Your task to perform on an android device: Search for pizza restaurants on Maps Image 0: 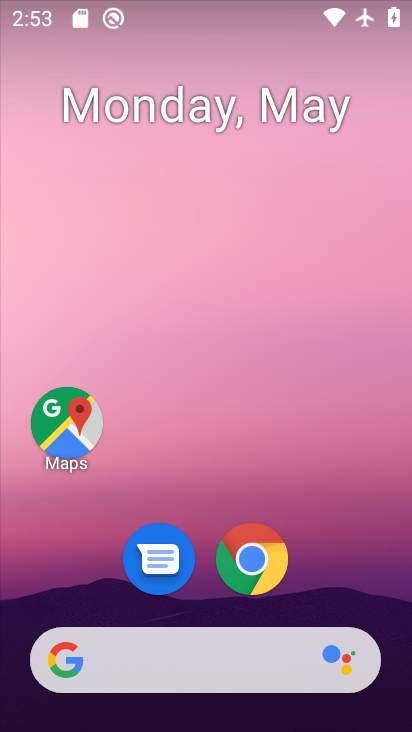
Step 0: drag from (307, 606) to (235, 249)
Your task to perform on an android device: Search for pizza restaurants on Maps Image 1: 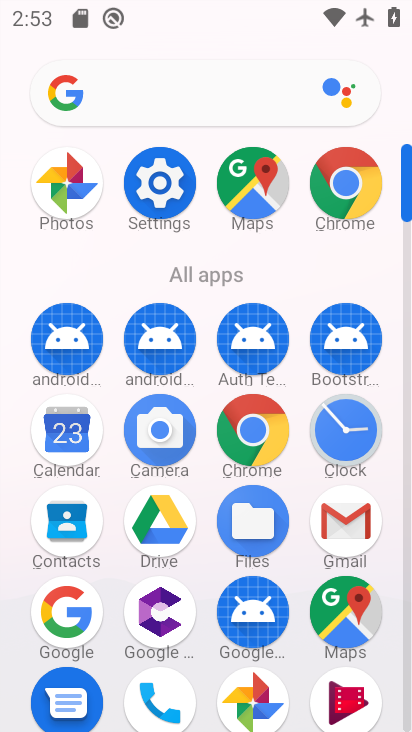
Step 1: click (243, 197)
Your task to perform on an android device: Search for pizza restaurants on Maps Image 2: 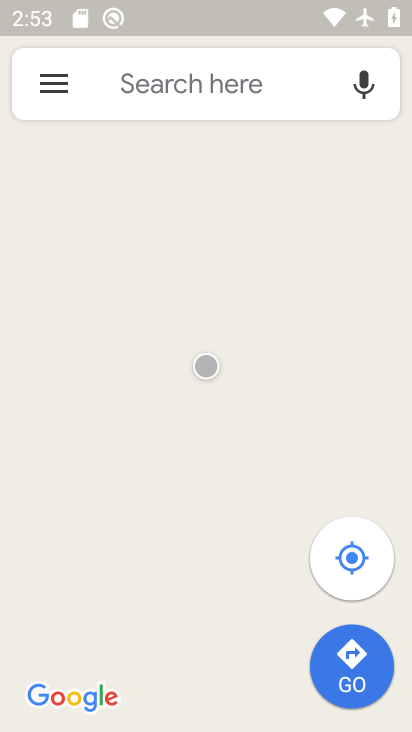
Step 2: click (167, 78)
Your task to perform on an android device: Search for pizza restaurants on Maps Image 3: 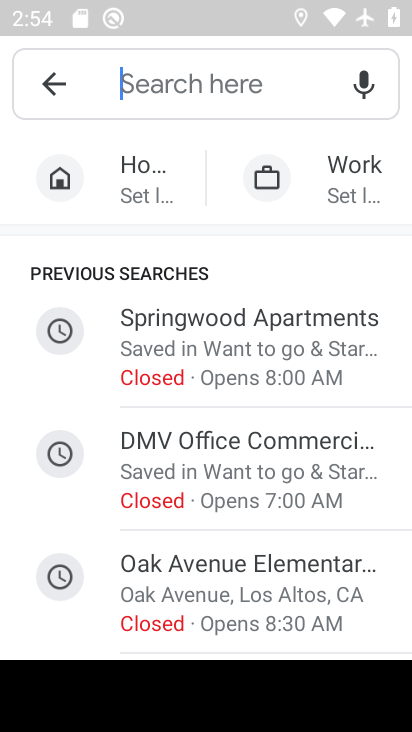
Step 3: drag from (245, 624) to (215, 449)
Your task to perform on an android device: Search for pizza restaurants on Maps Image 4: 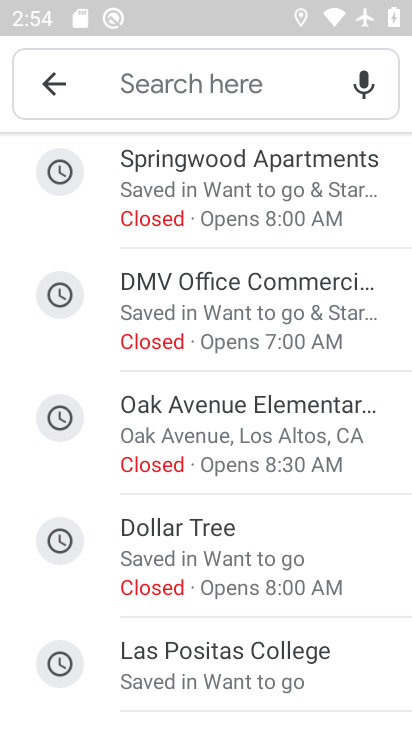
Step 4: drag from (221, 702) to (269, 391)
Your task to perform on an android device: Search for pizza restaurants on Maps Image 5: 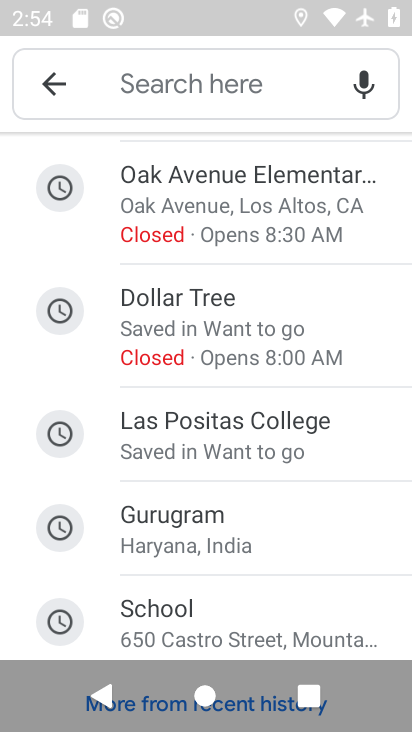
Step 5: drag from (192, 558) to (215, 362)
Your task to perform on an android device: Search for pizza restaurants on Maps Image 6: 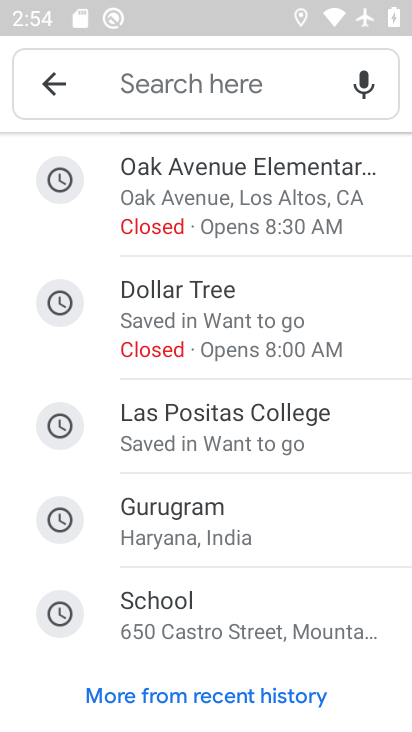
Step 6: click (165, 87)
Your task to perform on an android device: Search for pizza restaurants on Maps Image 7: 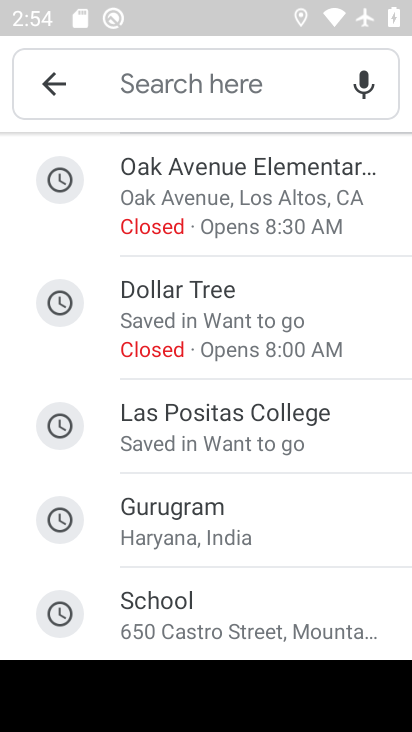
Step 7: type "pizza restaurants"
Your task to perform on an android device: Search for pizza restaurants on Maps Image 8: 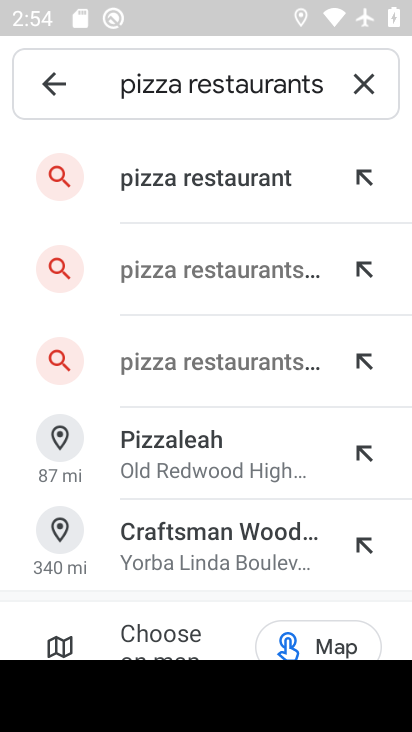
Step 8: click (215, 267)
Your task to perform on an android device: Search for pizza restaurants on Maps Image 9: 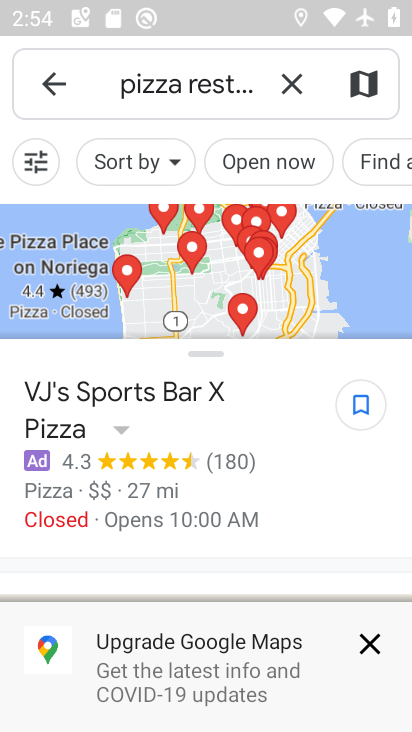
Step 9: task complete